Your task to perform on an android device: turn on airplane mode Image 0: 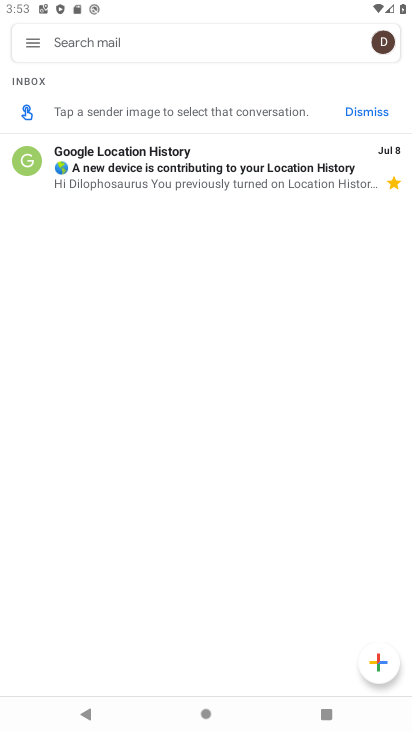
Step 0: drag from (393, 1) to (373, 438)
Your task to perform on an android device: turn on airplane mode Image 1: 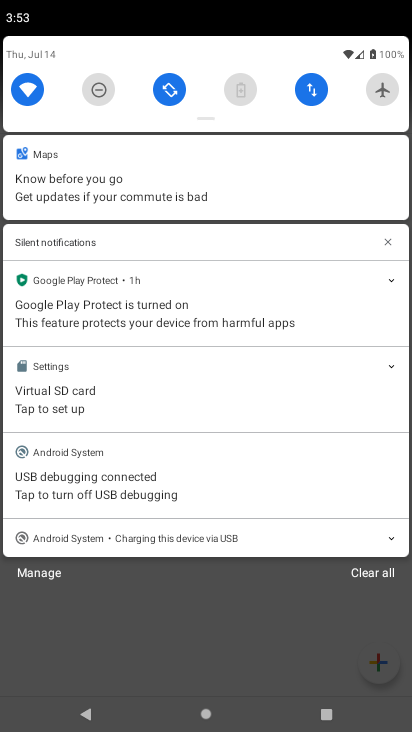
Step 1: click (392, 91)
Your task to perform on an android device: turn on airplane mode Image 2: 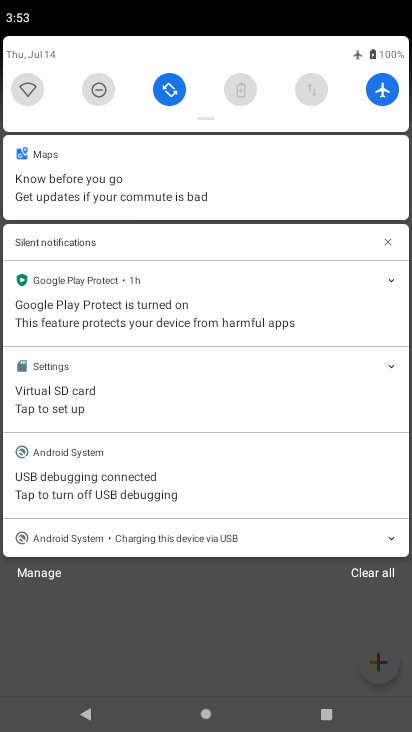
Step 2: task complete